Your task to perform on an android device: Open eBay Image 0: 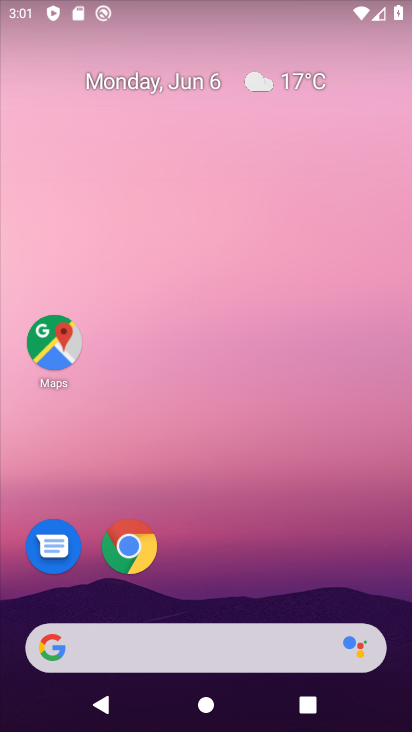
Step 0: drag from (248, 624) to (275, 98)
Your task to perform on an android device: Open eBay Image 1: 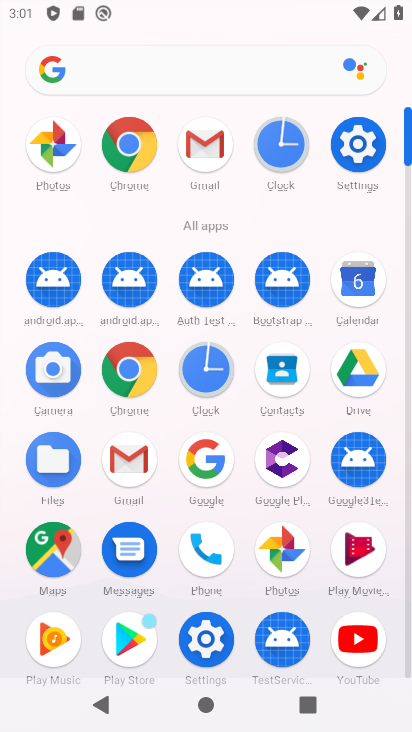
Step 1: click (121, 148)
Your task to perform on an android device: Open eBay Image 2: 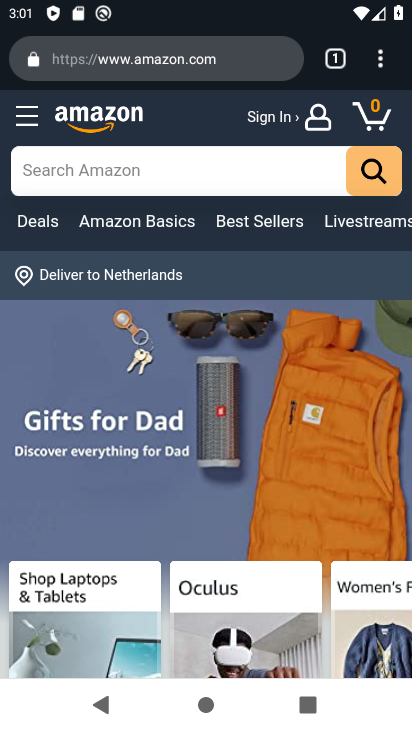
Step 2: click (186, 68)
Your task to perform on an android device: Open eBay Image 3: 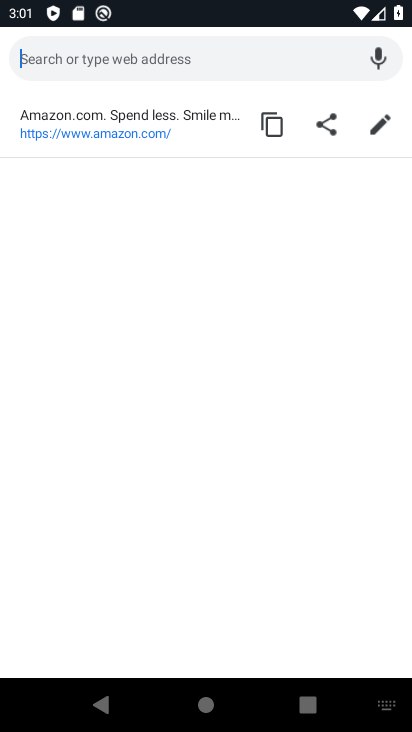
Step 3: type "ebay"
Your task to perform on an android device: Open eBay Image 4: 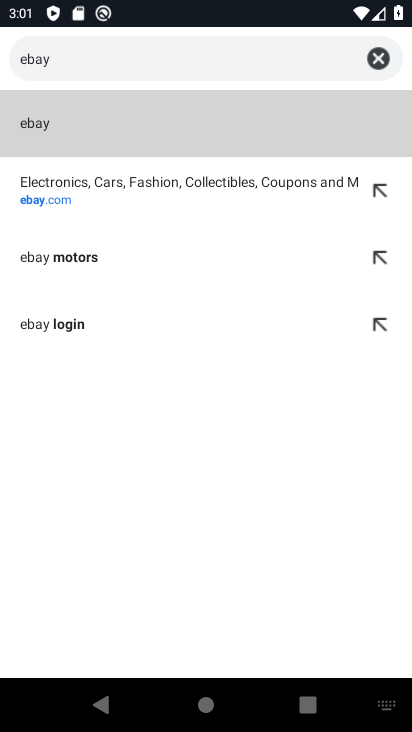
Step 4: click (49, 174)
Your task to perform on an android device: Open eBay Image 5: 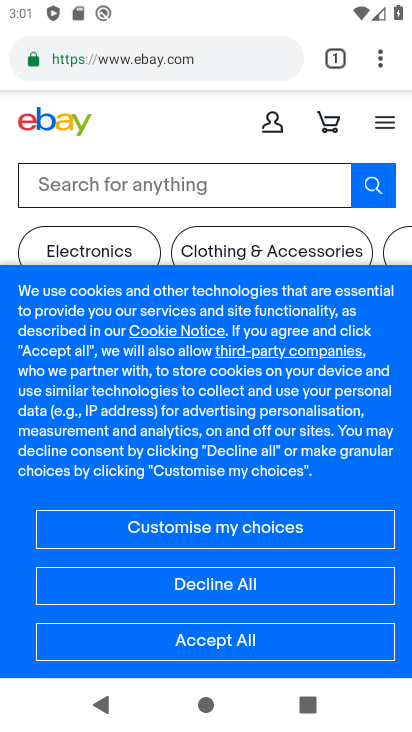
Step 5: task complete